Your task to perform on an android device: see sites visited before in the chrome app Image 0: 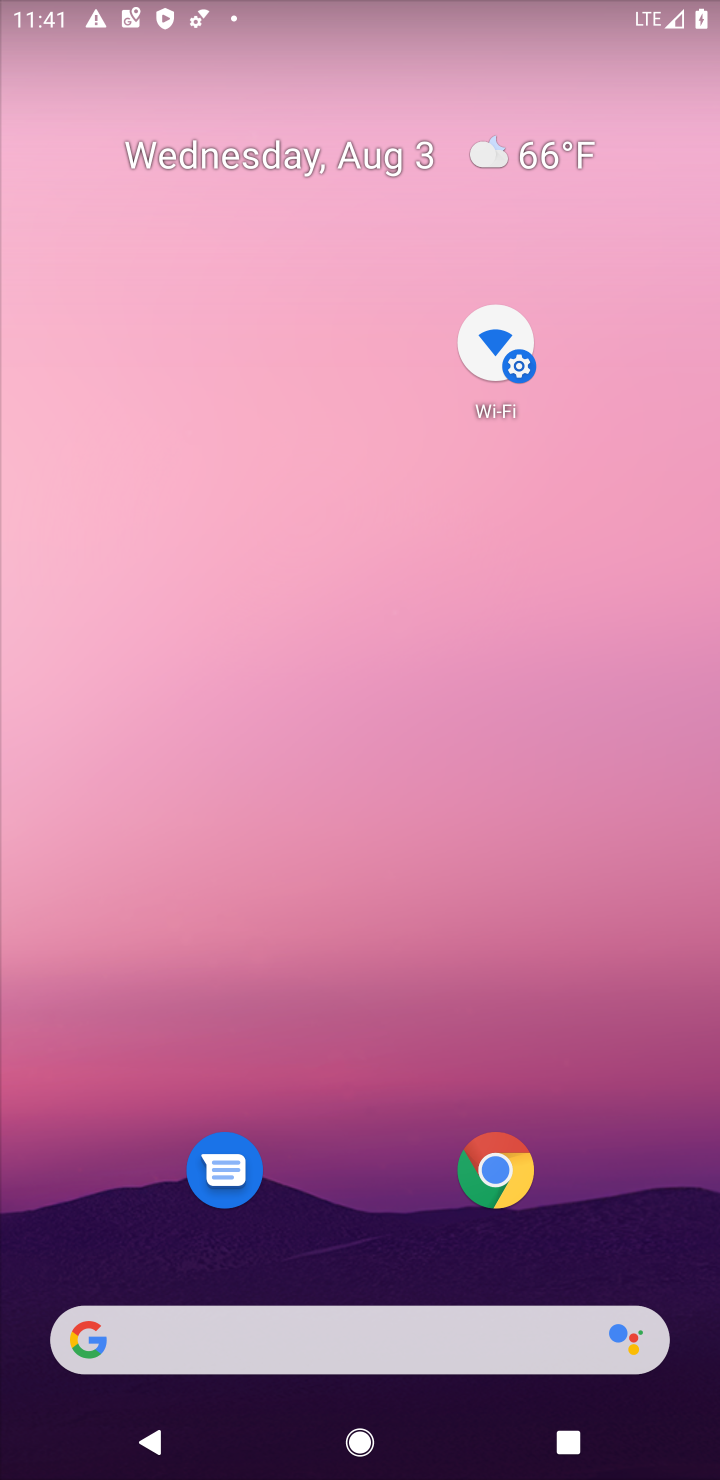
Step 0: drag from (379, 1117) to (414, 223)
Your task to perform on an android device: see sites visited before in the chrome app Image 1: 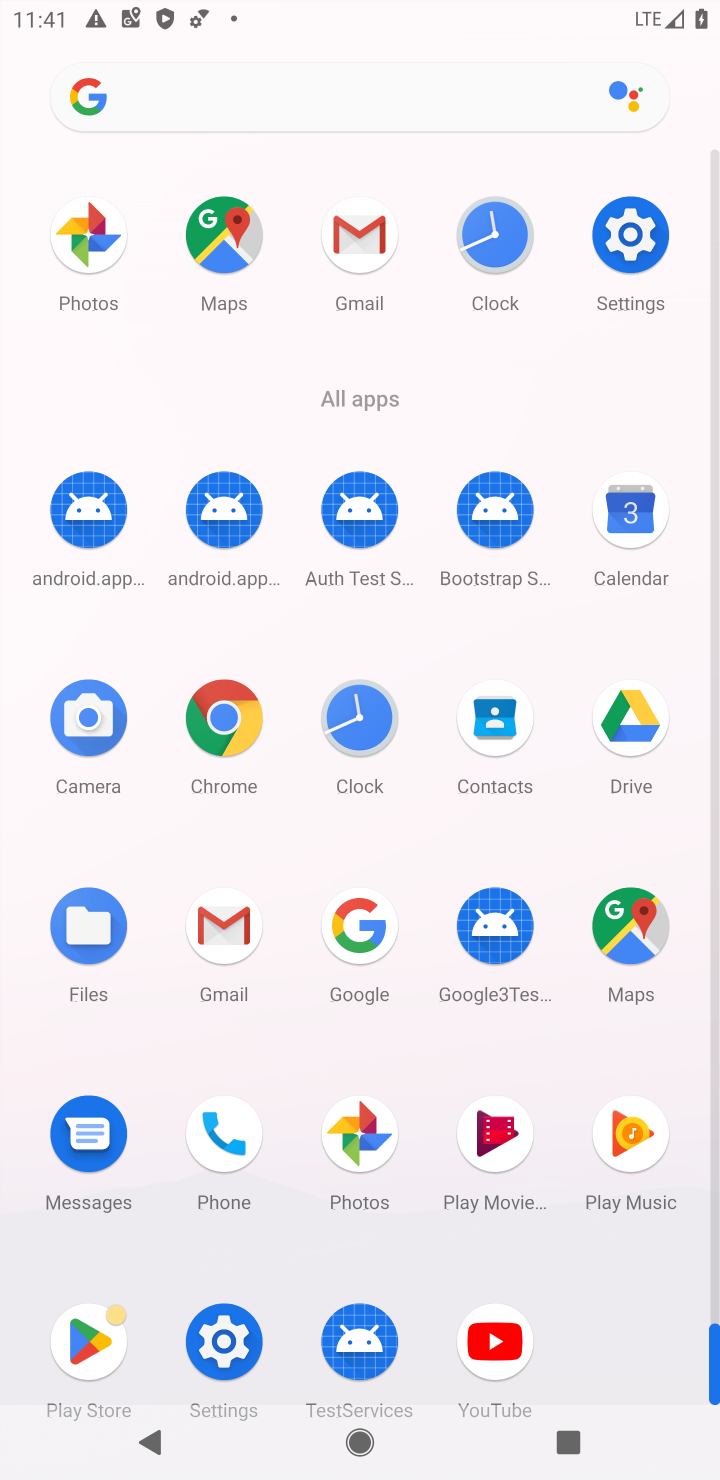
Step 1: click (235, 725)
Your task to perform on an android device: see sites visited before in the chrome app Image 2: 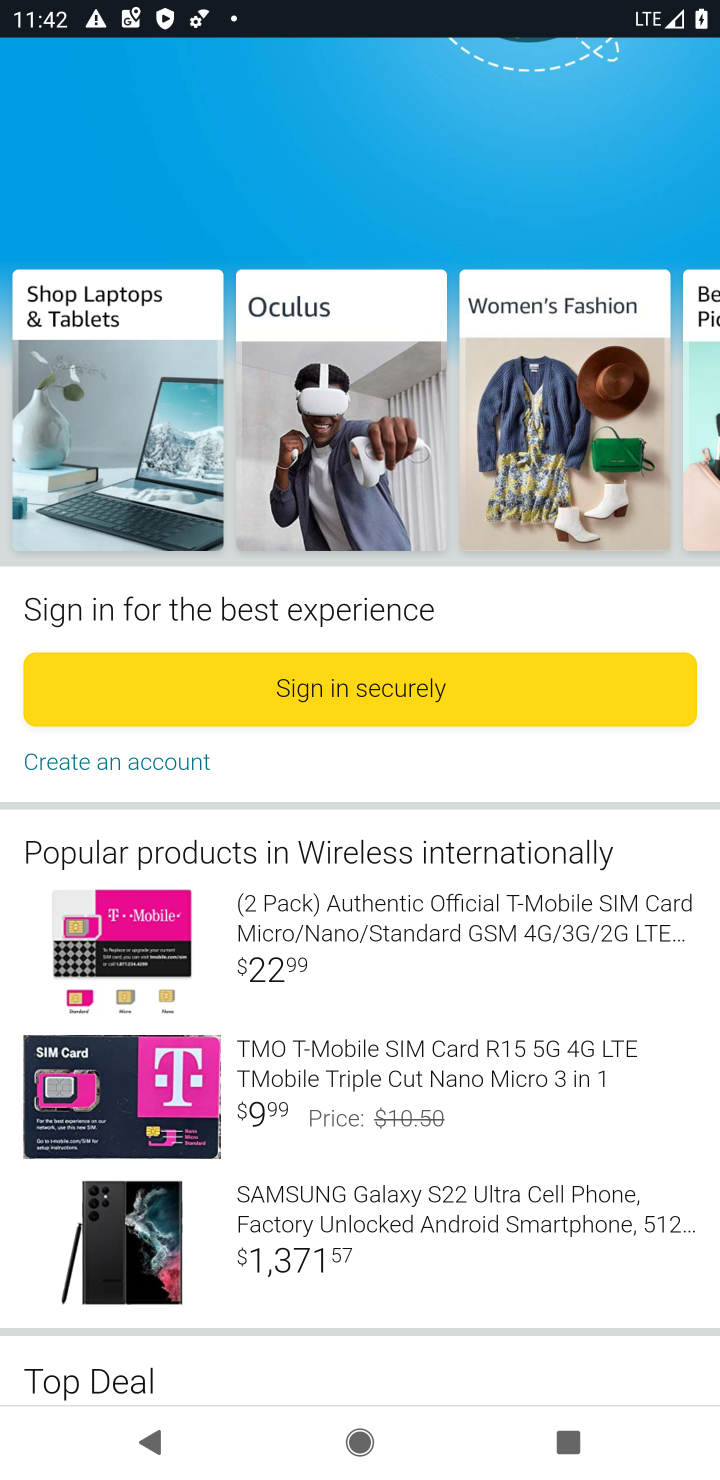
Step 2: drag from (366, 1035) to (369, 536)
Your task to perform on an android device: see sites visited before in the chrome app Image 3: 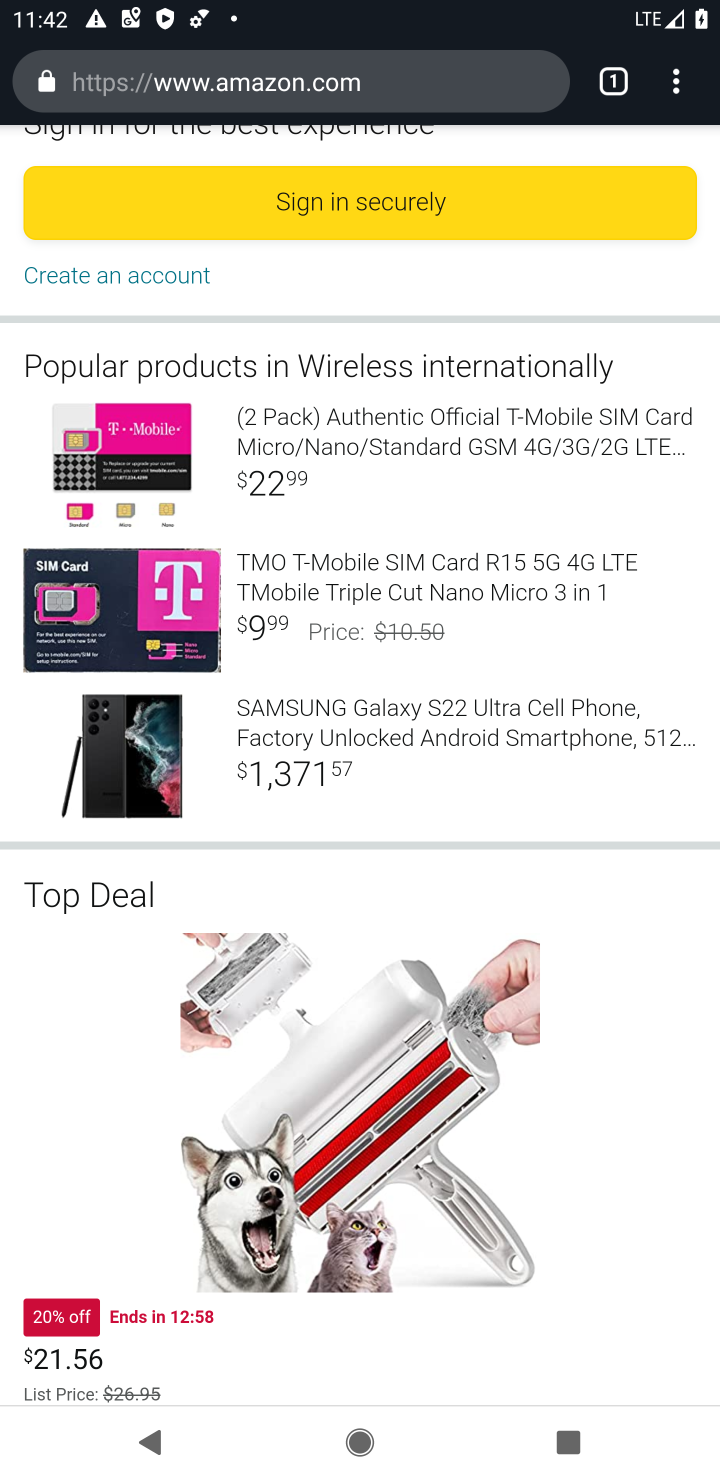
Step 3: drag from (346, 581) to (360, 815)
Your task to perform on an android device: see sites visited before in the chrome app Image 4: 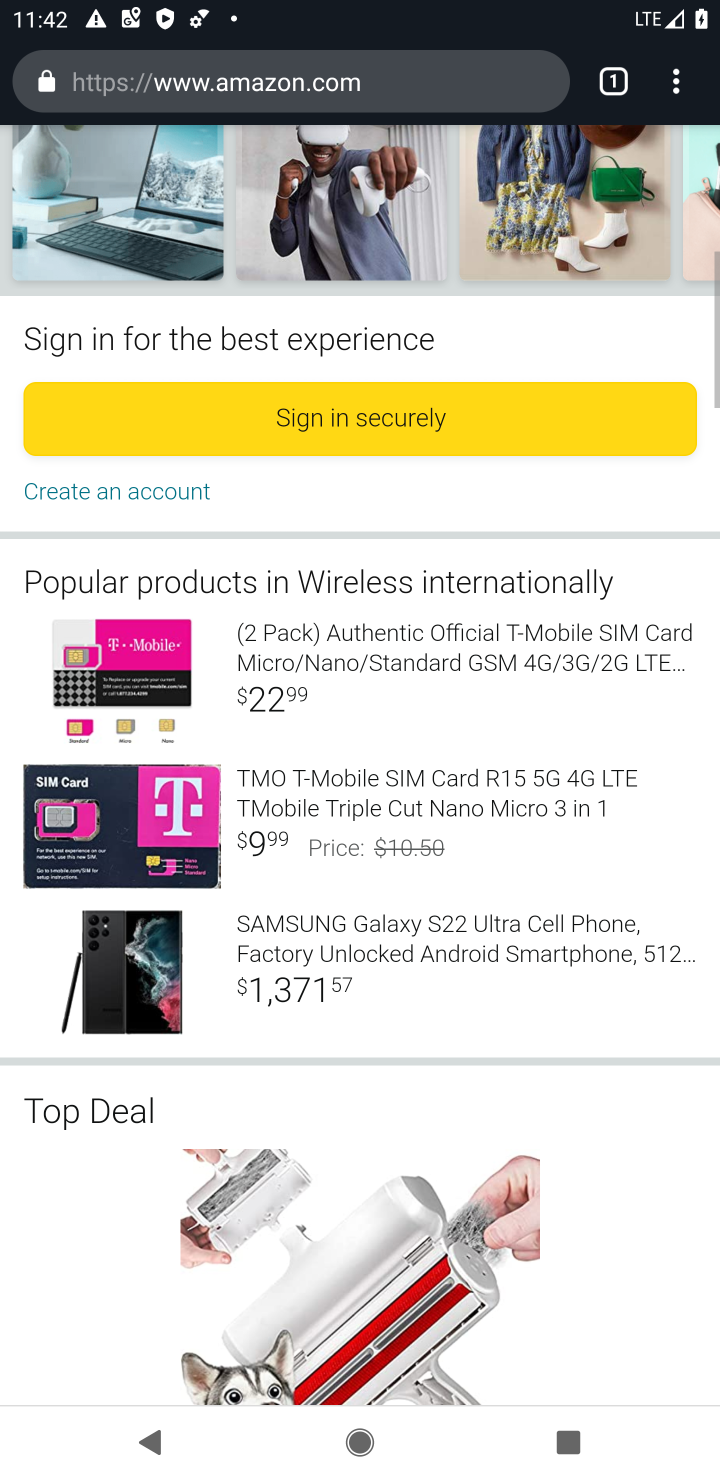
Step 4: drag from (345, 671) to (433, 302)
Your task to perform on an android device: see sites visited before in the chrome app Image 5: 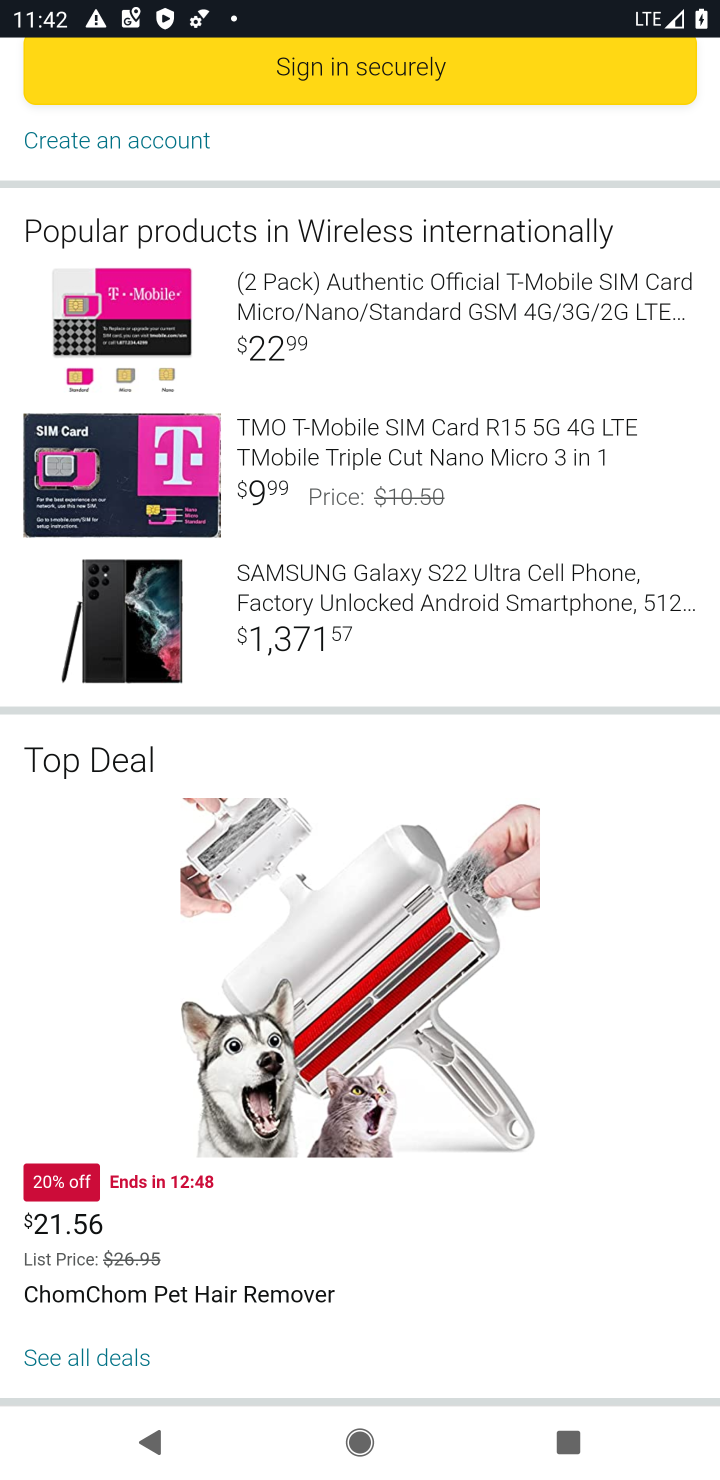
Step 5: drag from (465, 388) to (552, 1029)
Your task to perform on an android device: see sites visited before in the chrome app Image 6: 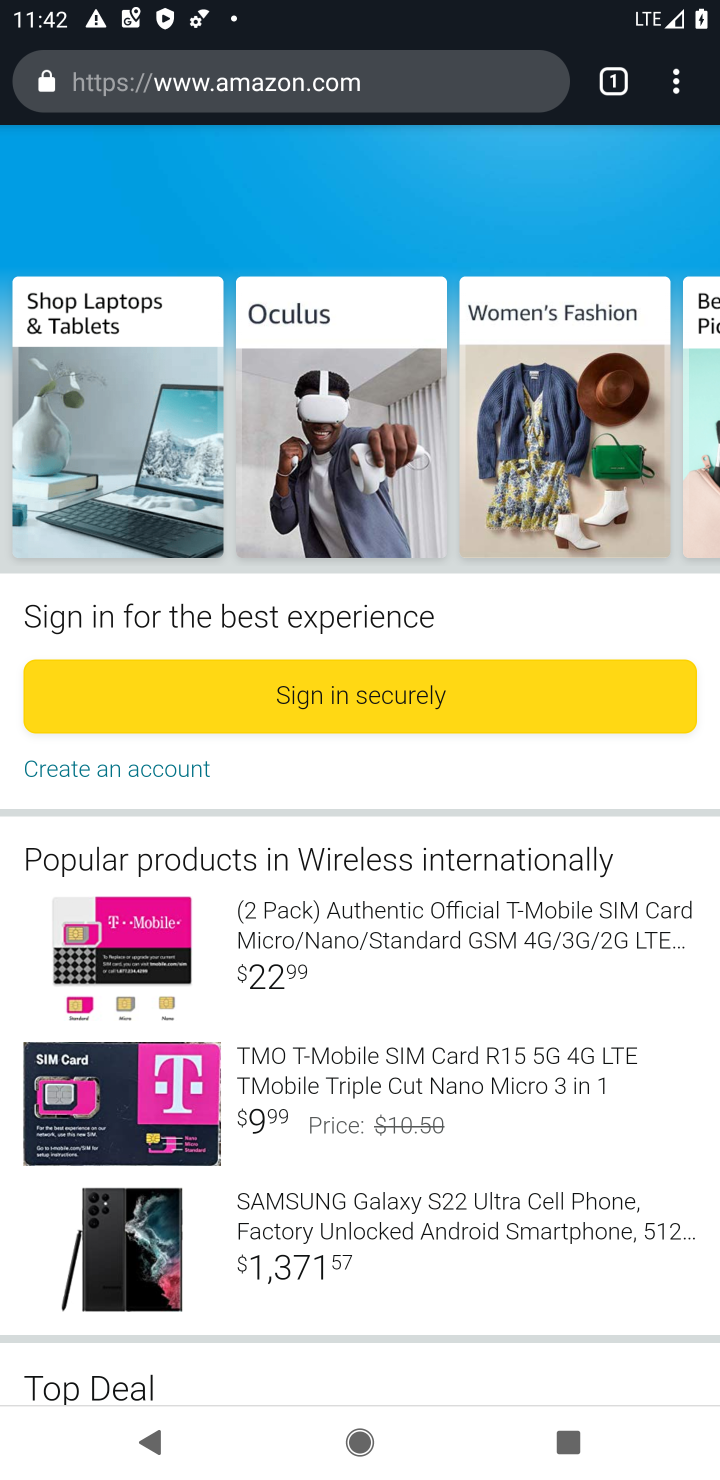
Step 6: drag from (684, 85) to (388, 484)
Your task to perform on an android device: see sites visited before in the chrome app Image 7: 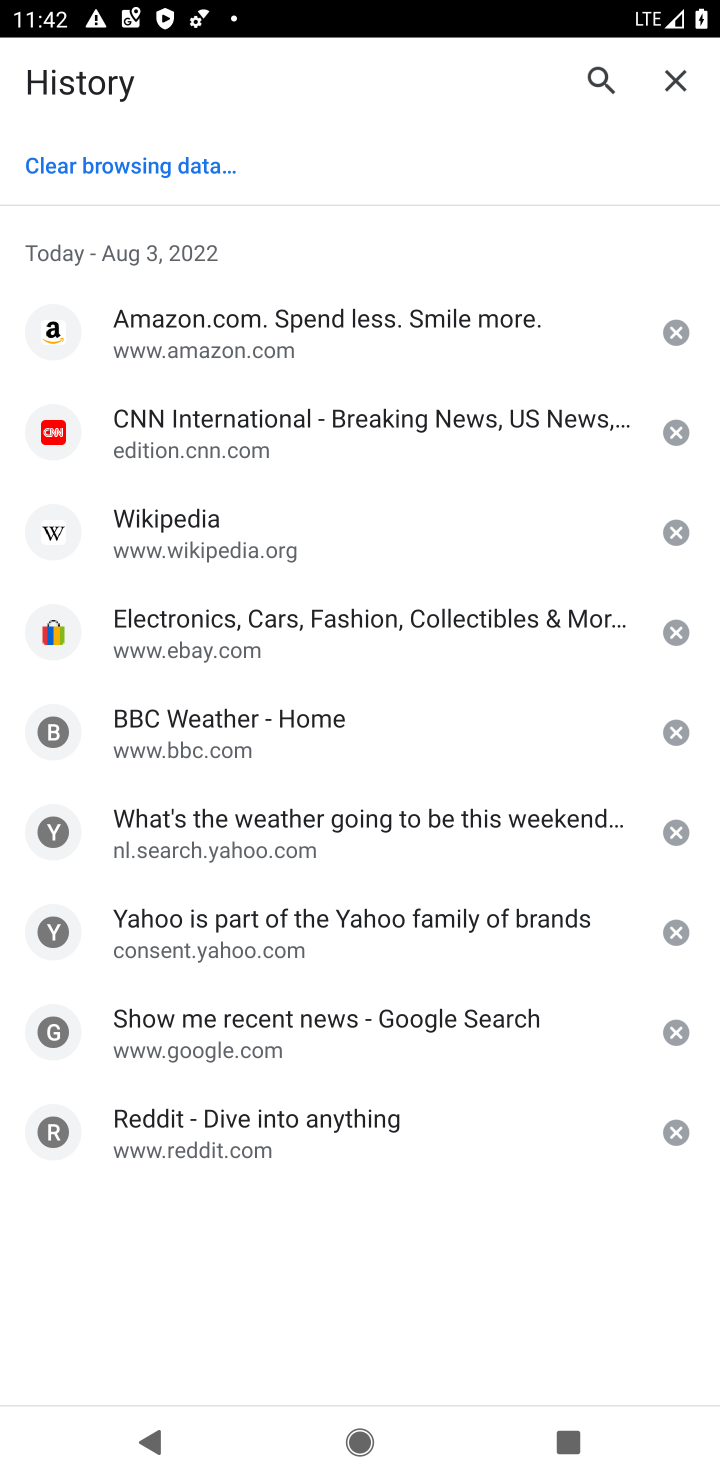
Step 7: click (460, 330)
Your task to perform on an android device: see sites visited before in the chrome app Image 8: 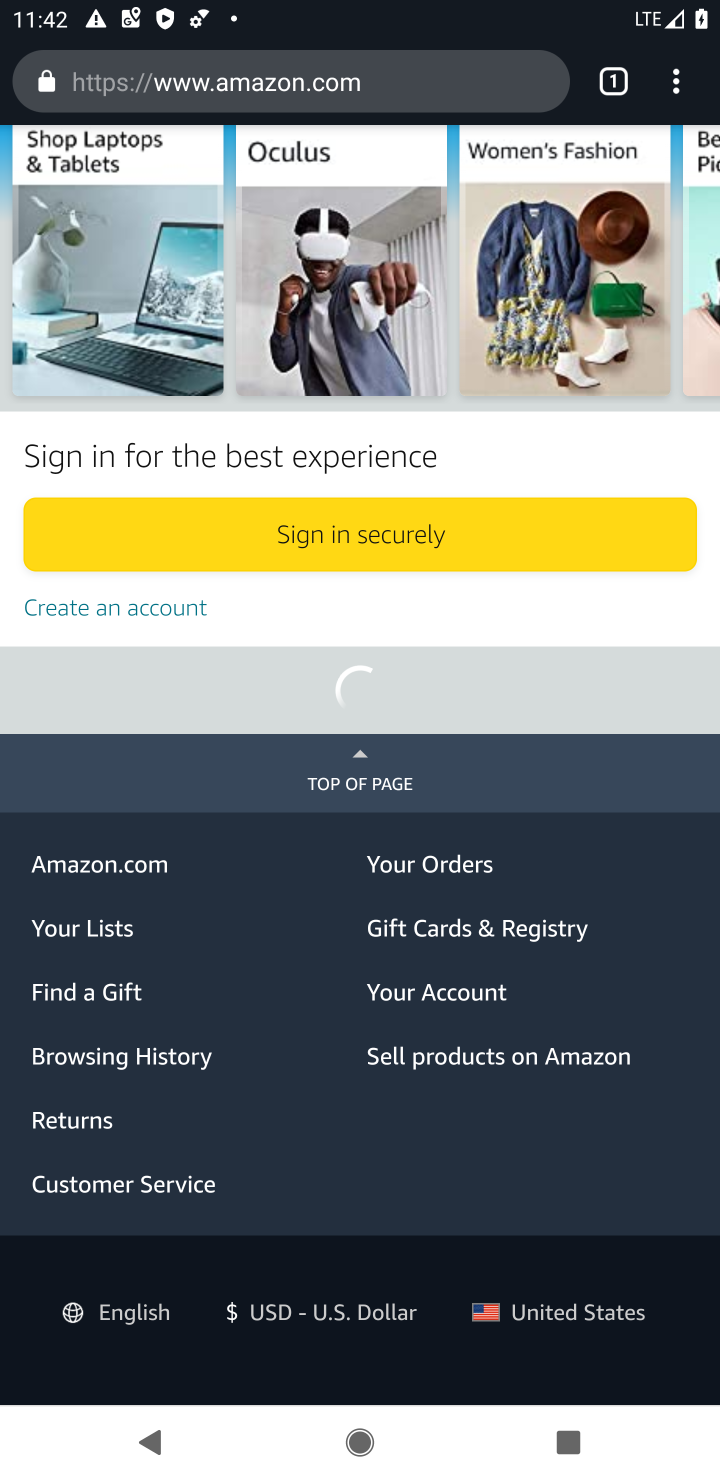
Step 8: task complete